Your task to perform on an android device: turn on airplane mode Image 0: 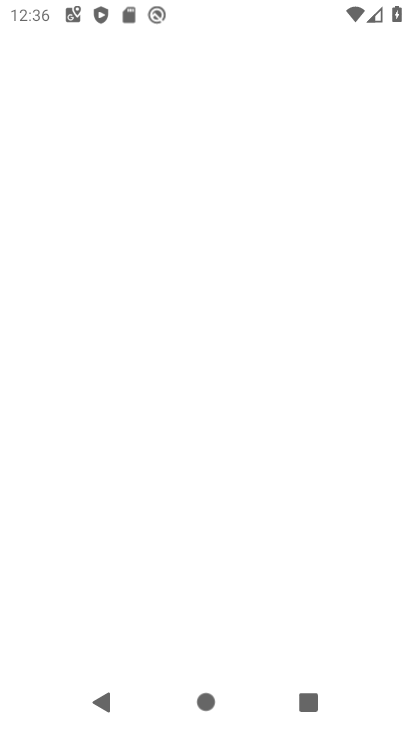
Step 0: drag from (274, 662) to (197, 101)
Your task to perform on an android device: turn on airplane mode Image 1: 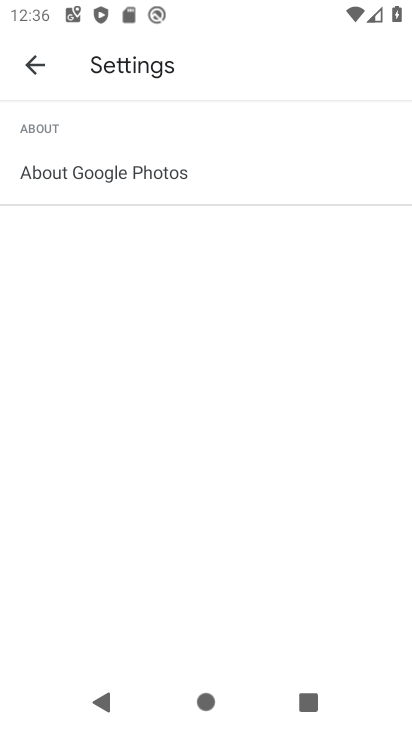
Step 1: press home button
Your task to perform on an android device: turn on airplane mode Image 2: 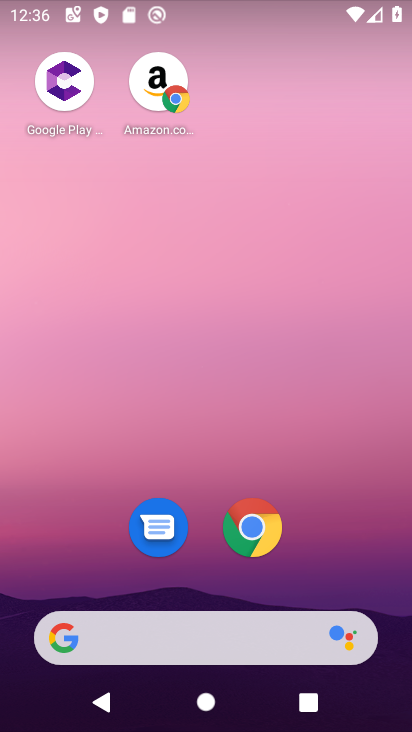
Step 2: drag from (248, 675) to (229, 37)
Your task to perform on an android device: turn on airplane mode Image 3: 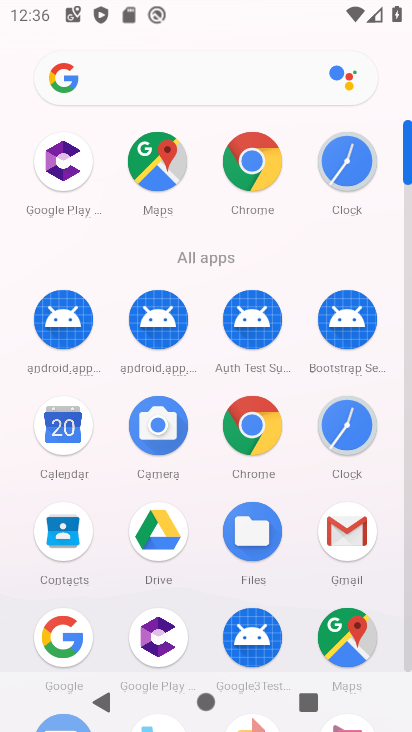
Step 3: drag from (206, 497) to (209, 232)
Your task to perform on an android device: turn on airplane mode Image 4: 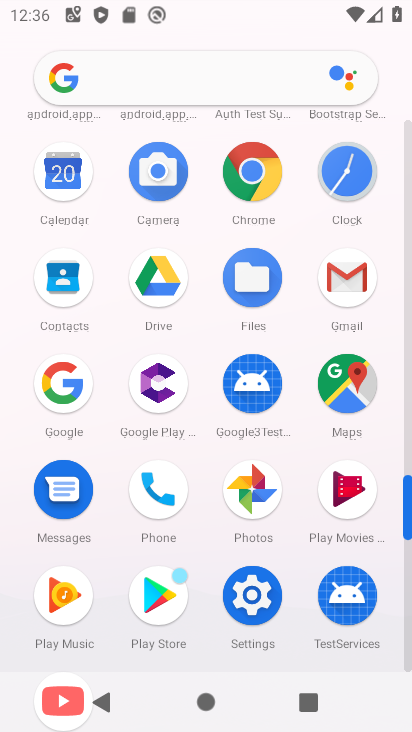
Step 4: click (254, 582)
Your task to perform on an android device: turn on airplane mode Image 5: 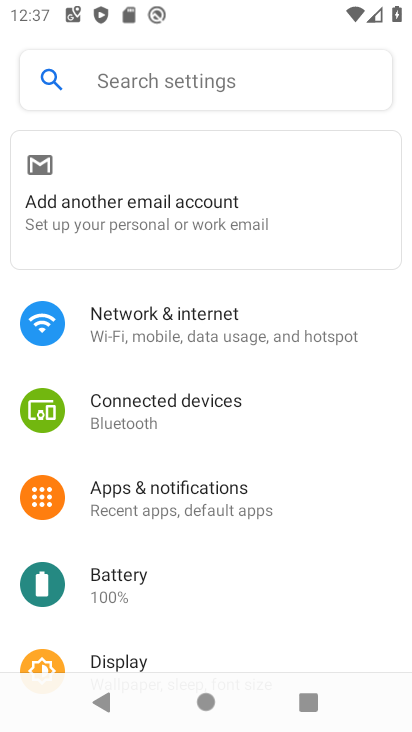
Step 5: click (183, 356)
Your task to perform on an android device: turn on airplane mode Image 6: 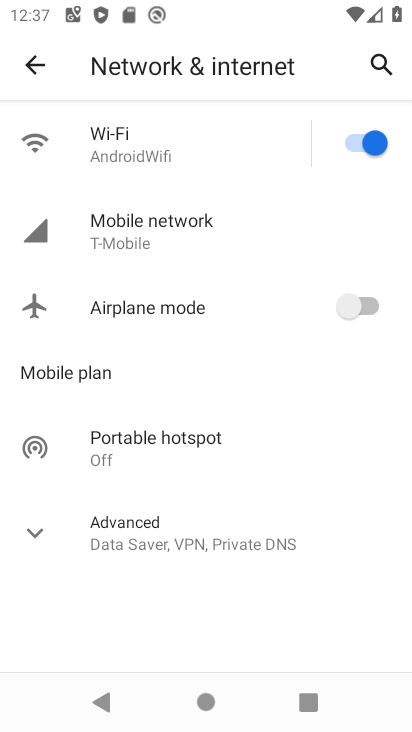
Step 6: click (342, 313)
Your task to perform on an android device: turn on airplane mode Image 7: 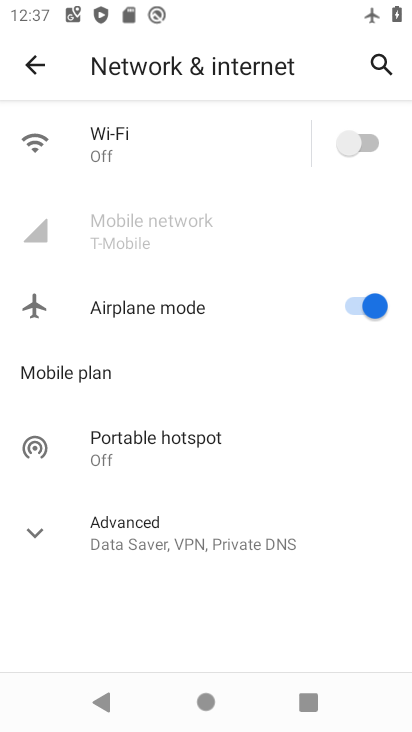
Step 7: task complete